Your task to perform on an android device: See recent photos Image 0: 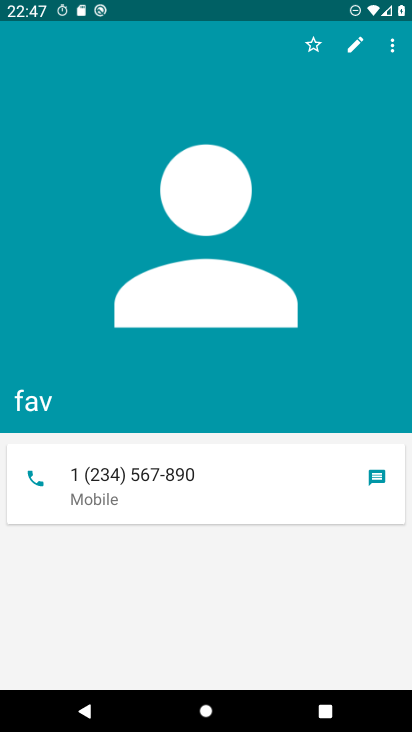
Step 0: press home button
Your task to perform on an android device: See recent photos Image 1: 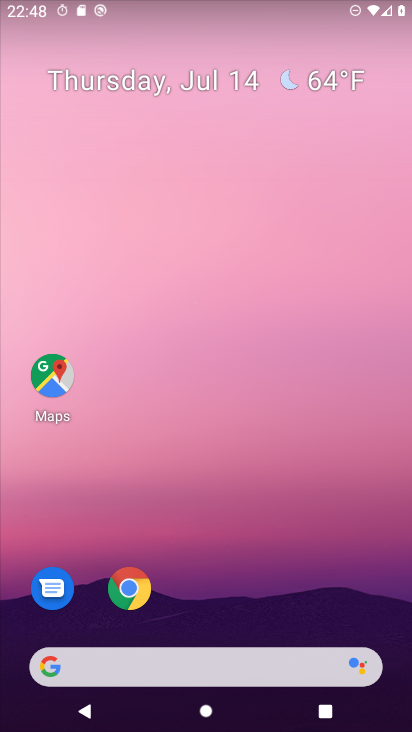
Step 1: drag from (342, 583) to (375, 102)
Your task to perform on an android device: See recent photos Image 2: 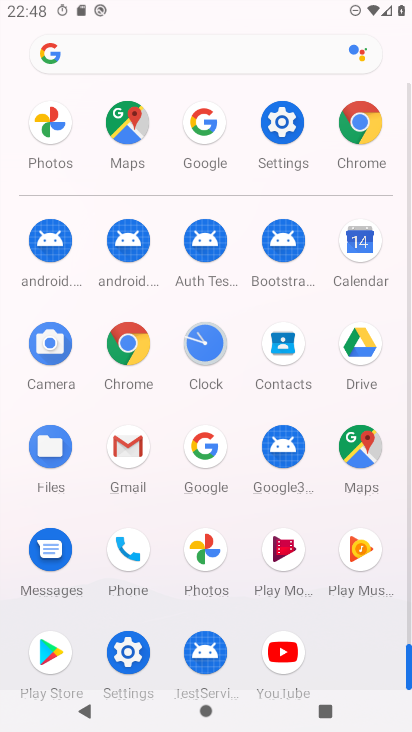
Step 2: click (213, 552)
Your task to perform on an android device: See recent photos Image 3: 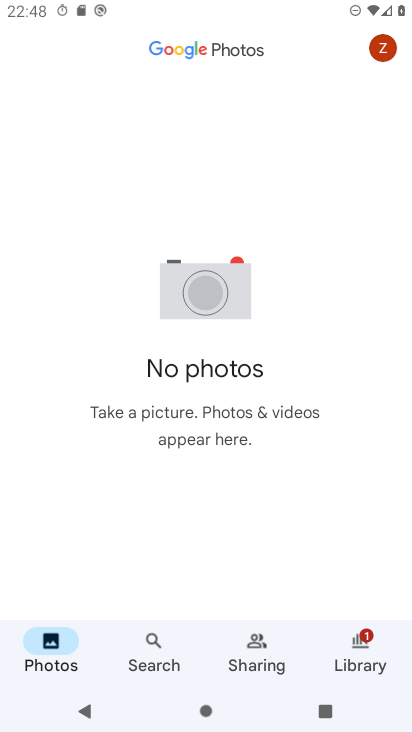
Step 3: task complete